Your task to perform on an android device: set the stopwatch Image 0: 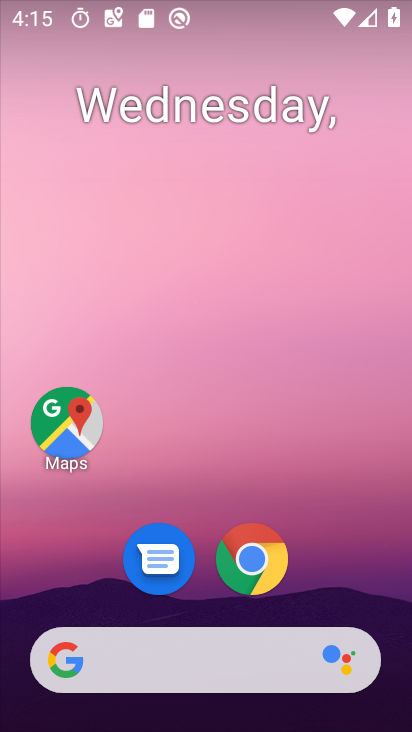
Step 0: drag from (344, 564) to (214, 56)
Your task to perform on an android device: set the stopwatch Image 1: 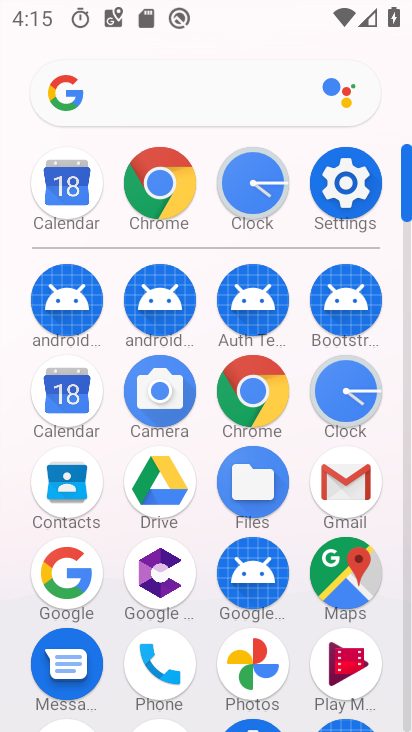
Step 1: click (348, 400)
Your task to perform on an android device: set the stopwatch Image 2: 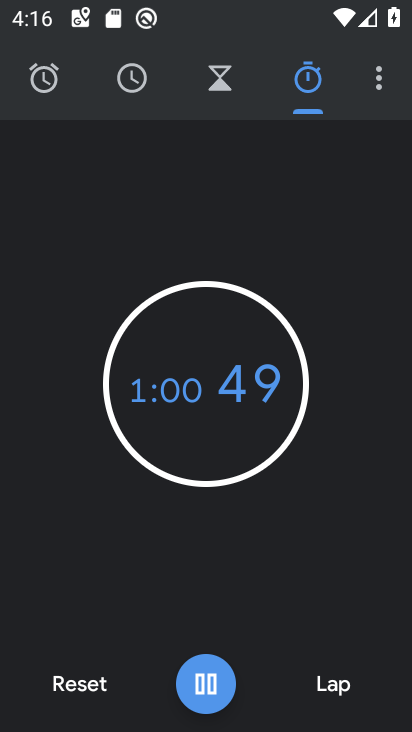
Step 2: click (88, 677)
Your task to perform on an android device: set the stopwatch Image 3: 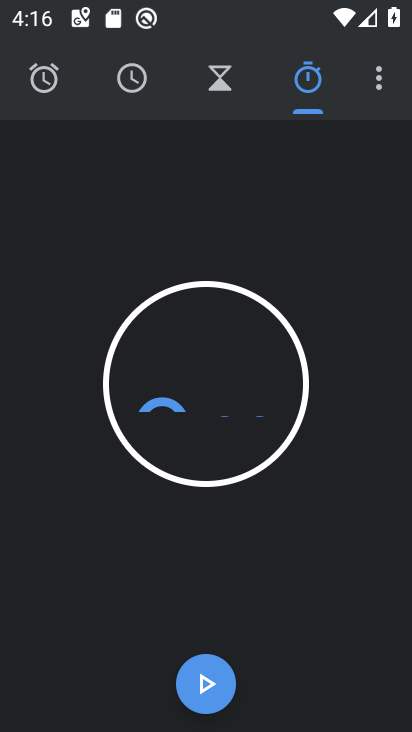
Step 3: click (209, 679)
Your task to perform on an android device: set the stopwatch Image 4: 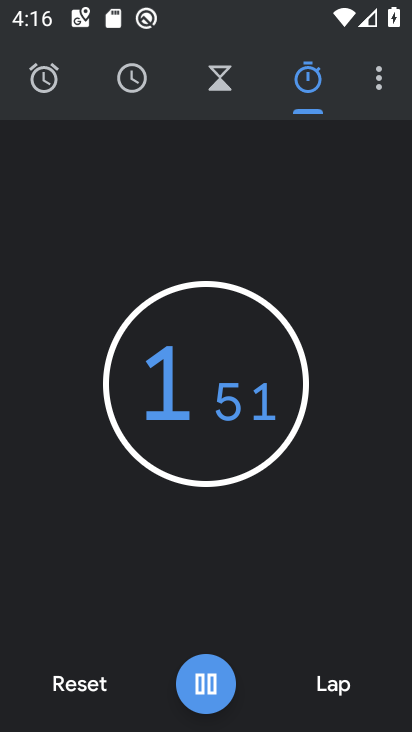
Step 4: task complete